Your task to perform on an android device: Find coffee shops on Maps Image 0: 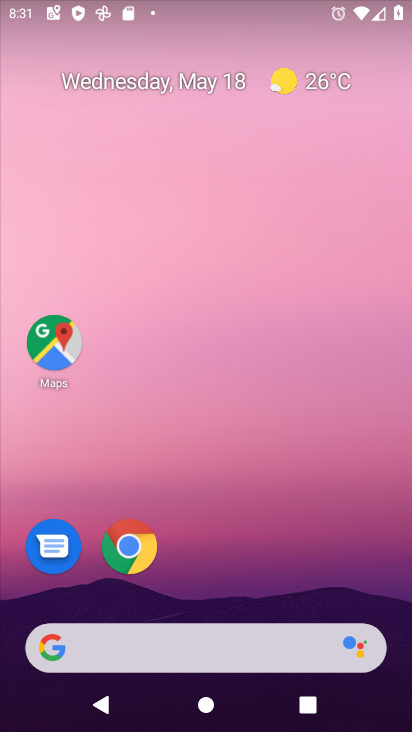
Step 0: drag from (386, 636) to (302, 69)
Your task to perform on an android device: Find coffee shops on Maps Image 1: 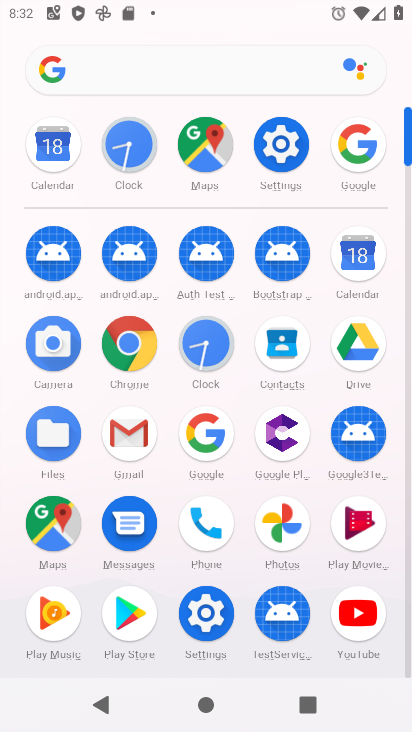
Step 1: click (34, 522)
Your task to perform on an android device: Find coffee shops on Maps Image 2: 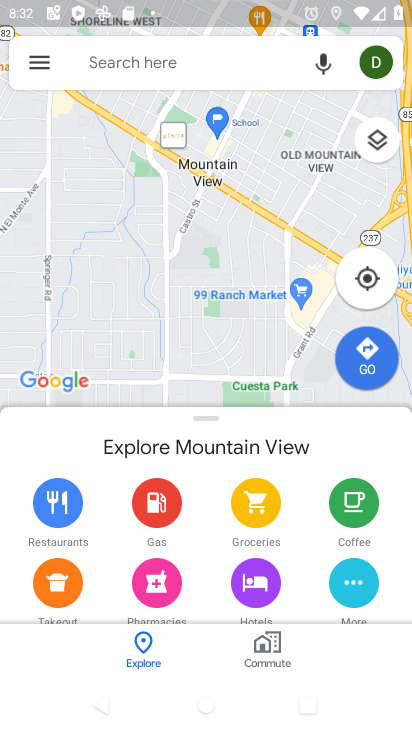
Step 2: click (148, 64)
Your task to perform on an android device: Find coffee shops on Maps Image 3: 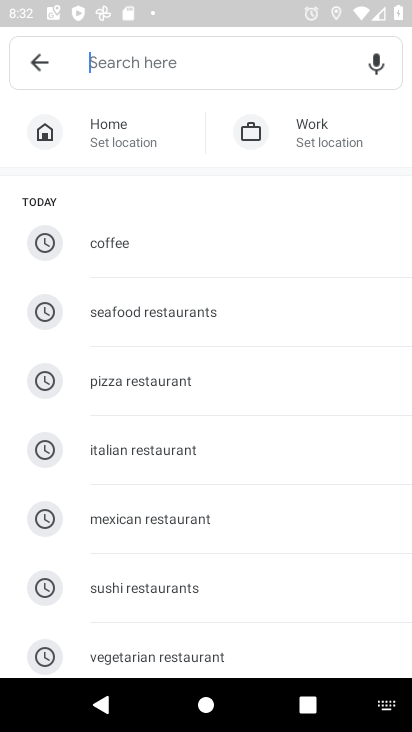
Step 3: click (163, 242)
Your task to perform on an android device: Find coffee shops on Maps Image 4: 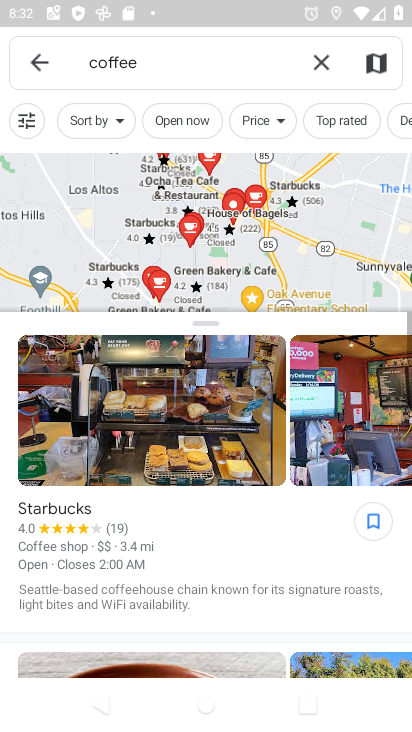
Step 4: task complete